Your task to perform on an android device: see tabs open on other devices in the chrome app Image 0: 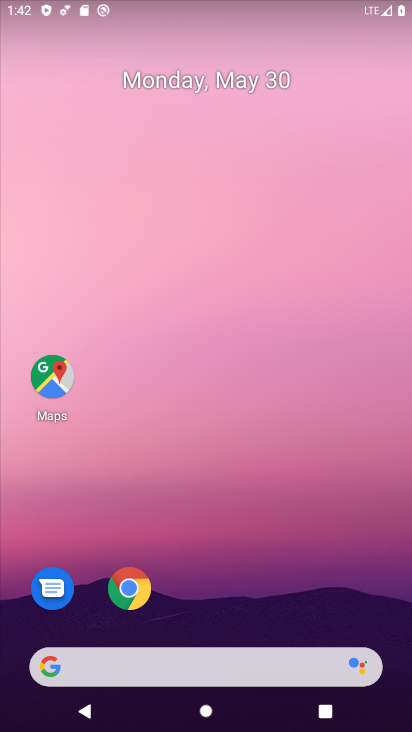
Step 0: press home button
Your task to perform on an android device: see tabs open on other devices in the chrome app Image 1: 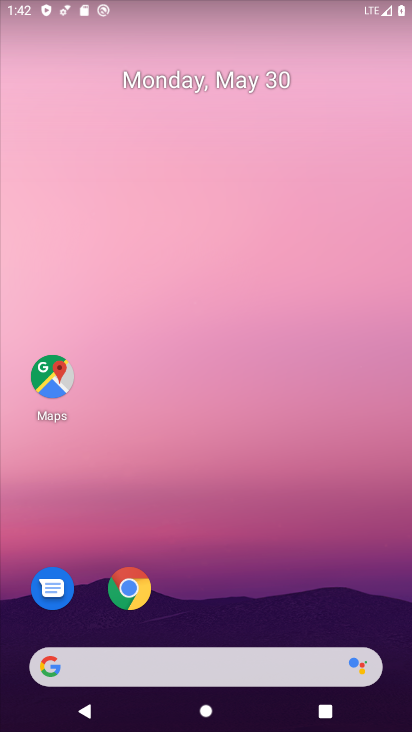
Step 1: click (130, 585)
Your task to perform on an android device: see tabs open on other devices in the chrome app Image 2: 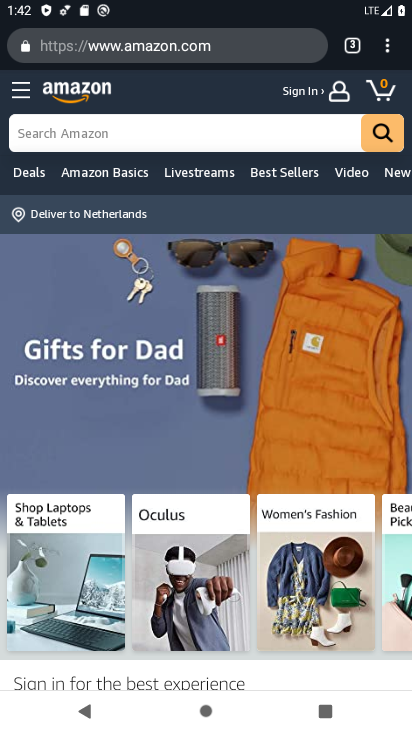
Step 2: click (396, 31)
Your task to perform on an android device: see tabs open on other devices in the chrome app Image 3: 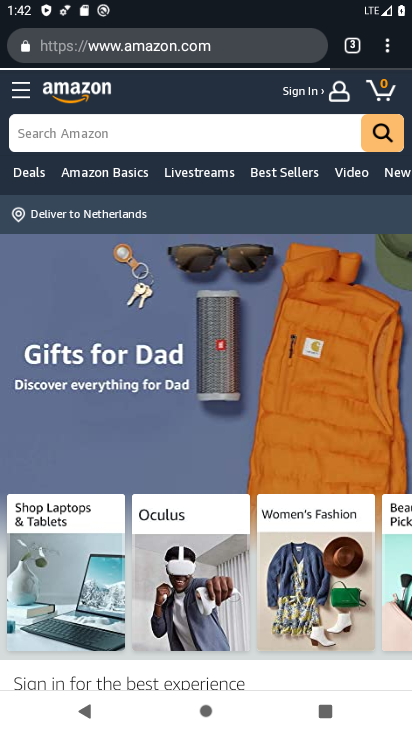
Step 3: click (388, 42)
Your task to perform on an android device: see tabs open on other devices in the chrome app Image 4: 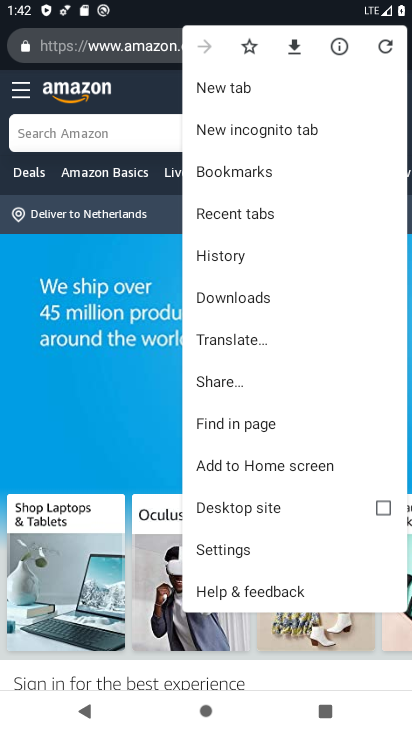
Step 4: click (248, 200)
Your task to perform on an android device: see tabs open on other devices in the chrome app Image 5: 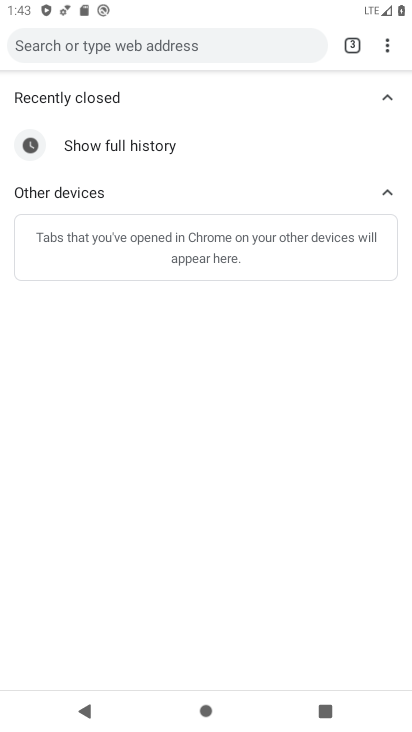
Step 5: task complete